Your task to perform on an android device: Go to location settings Image 0: 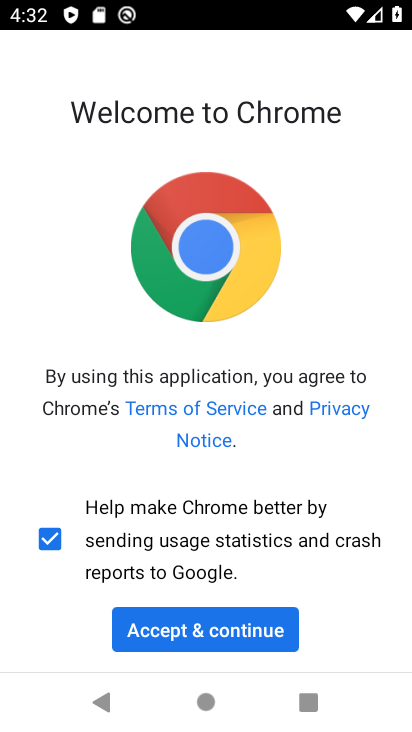
Step 0: press home button
Your task to perform on an android device: Go to location settings Image 1: 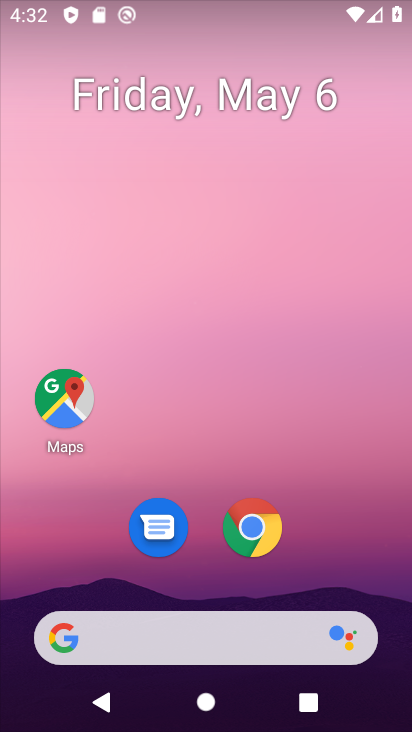
Step 1: drag from (216, 723) to (213, 37)
Your task to perform on an android device: Go to location settings Image 2: 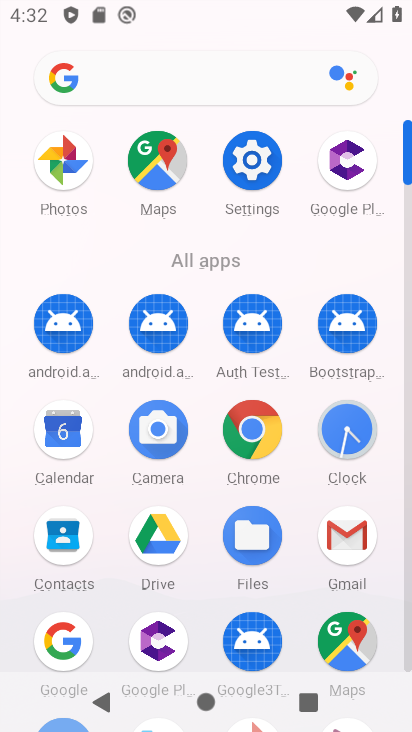
Step 2: click (256, 163)
Your task to perform on an android device: Go to location settings Image 3: 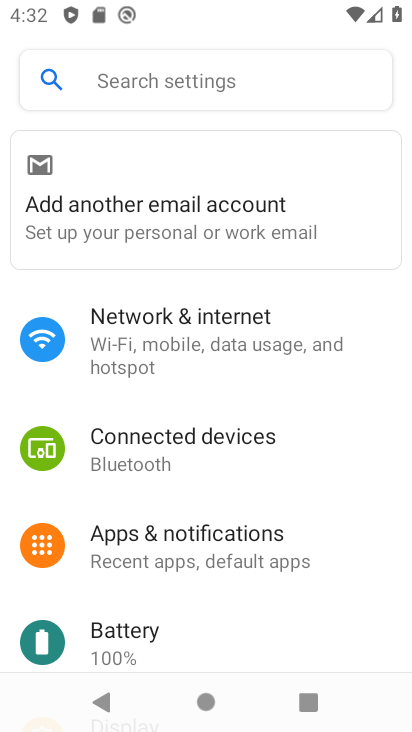
Step 3: drag from (183, 645) to (190, 277)
Your task to perform on an android device: Go to location settings Image 4: 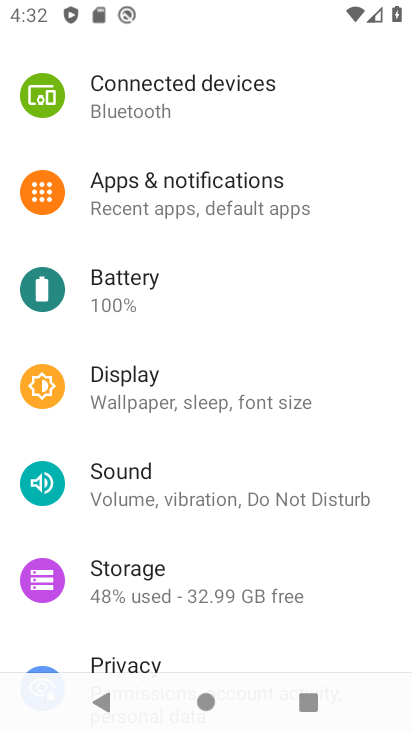
Step 4: drag from (185, 654) to (183, 394)
Your task to perform on an android device: Go to location settings Image 5: 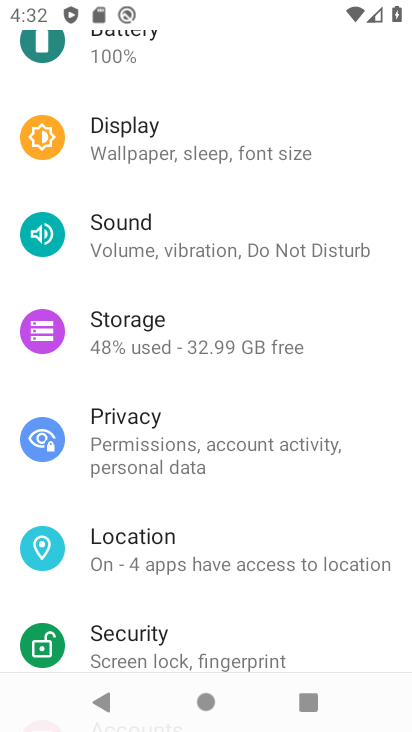
Step 5: click (162, 542)
Your task to perform on an android device: Go to location settings Image 6: 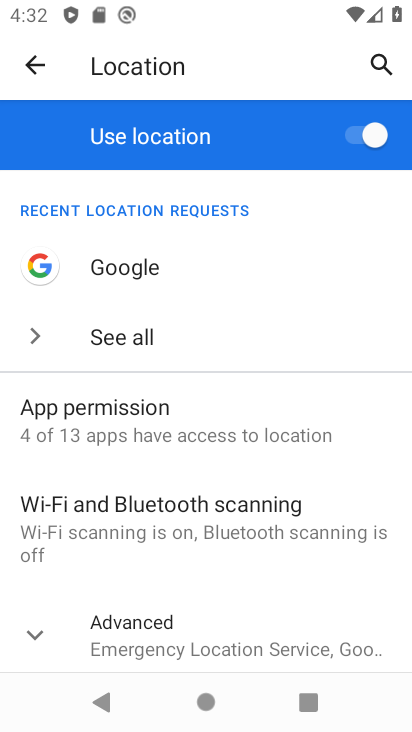
Step 6: task complete